Your task to perform on an android device: View the shopping cart on ebay. Image 0: 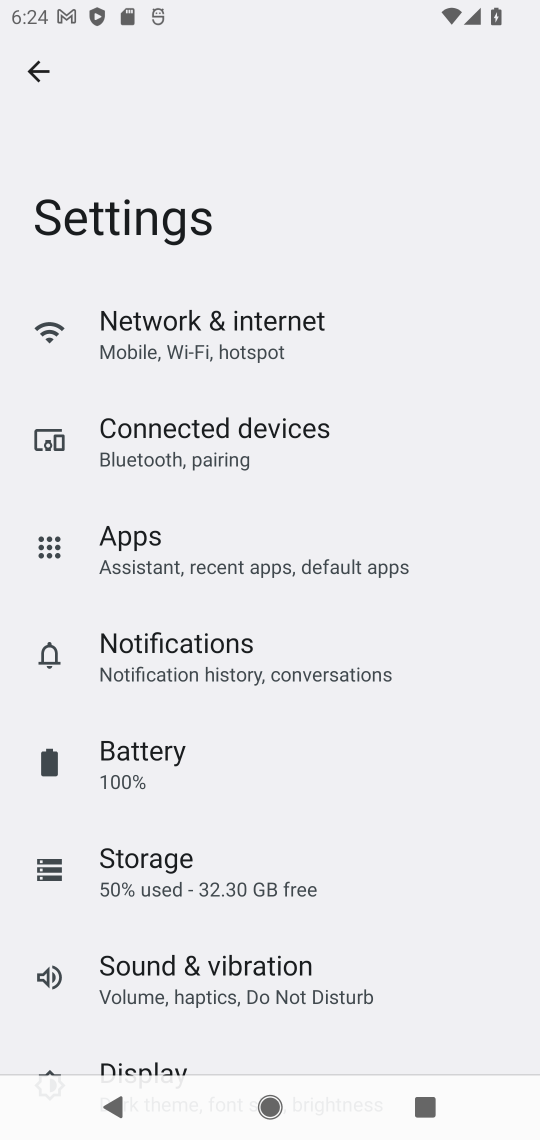
Step 0: press home button
Your task to perform on an android device: View the shopping cart on ebay. Image 1: 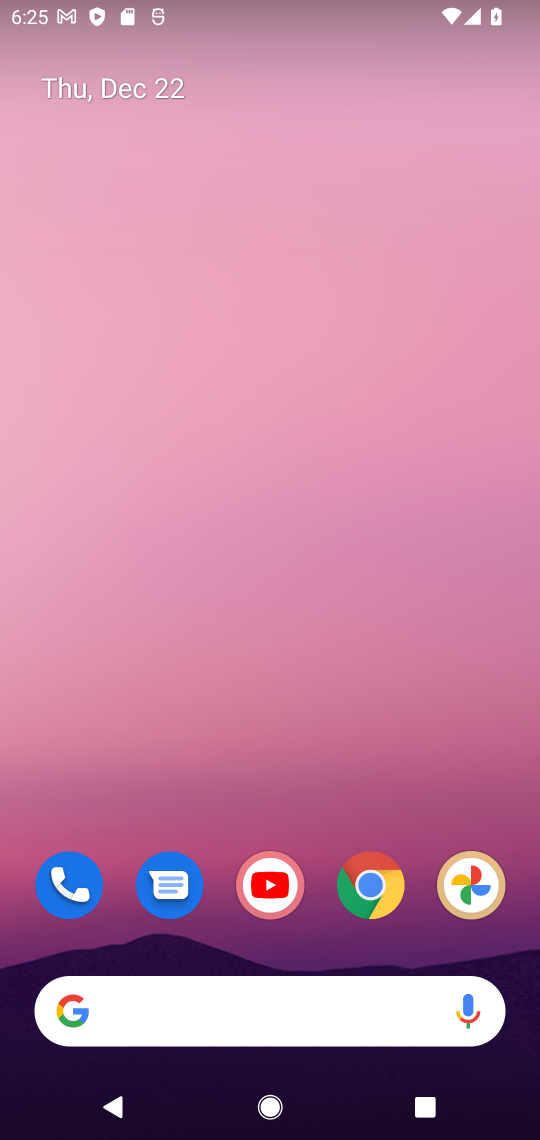
Step 1: click (369, 895)
Your task to perform on an android device: View the shopping cart on ebay. Image 2: 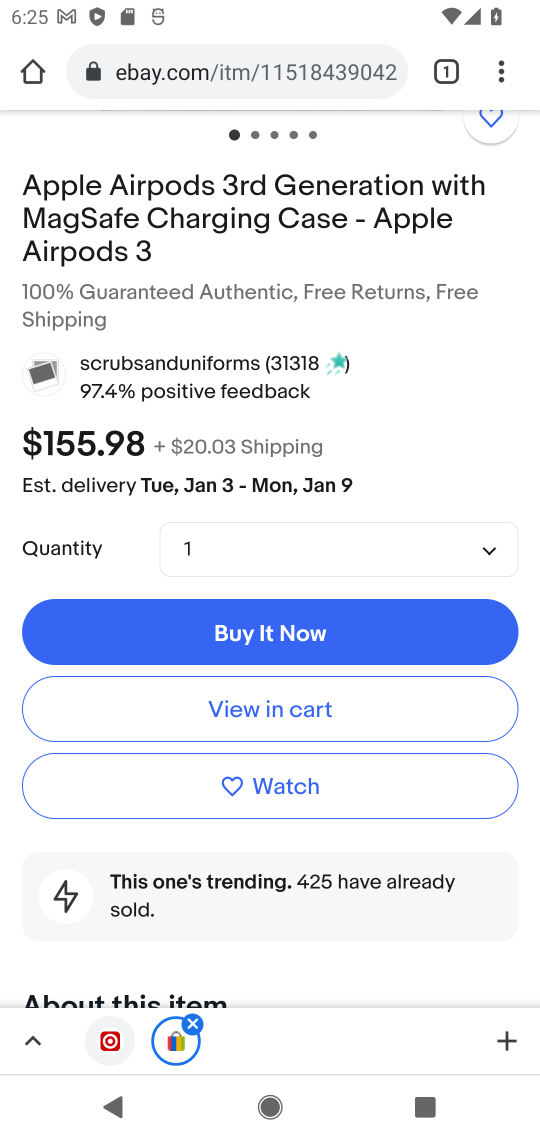
Step 2: drag from (375, 432) to (393, 1039)
Your task to perform on an android device: View the shopping cart on ebay. Image 3: 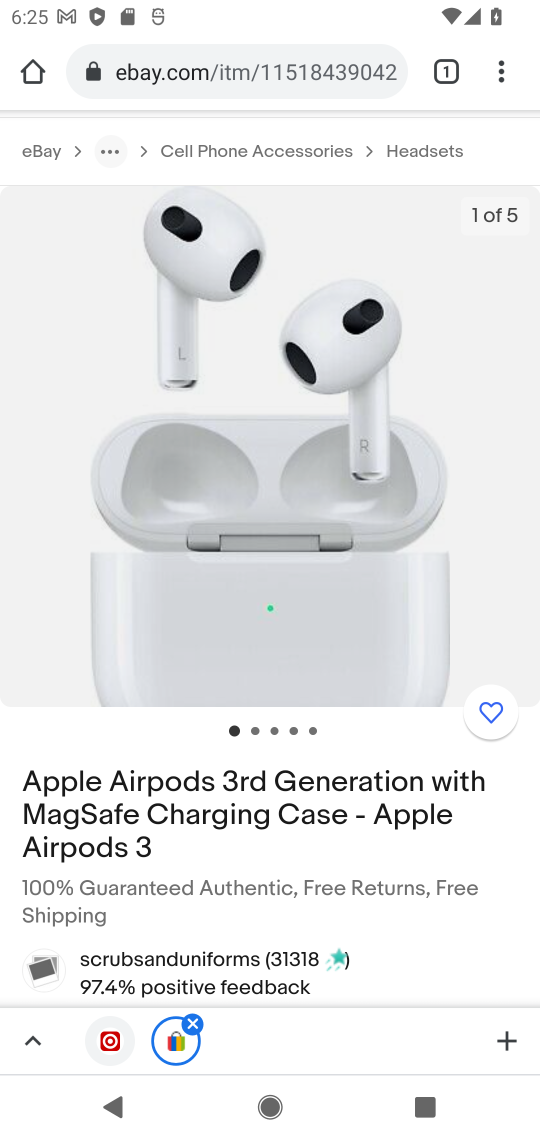
Step 3: drag from (435, 457) to (442, 908)
Your task to perform on an android device: View the shopping cart on ebay. Image 4: 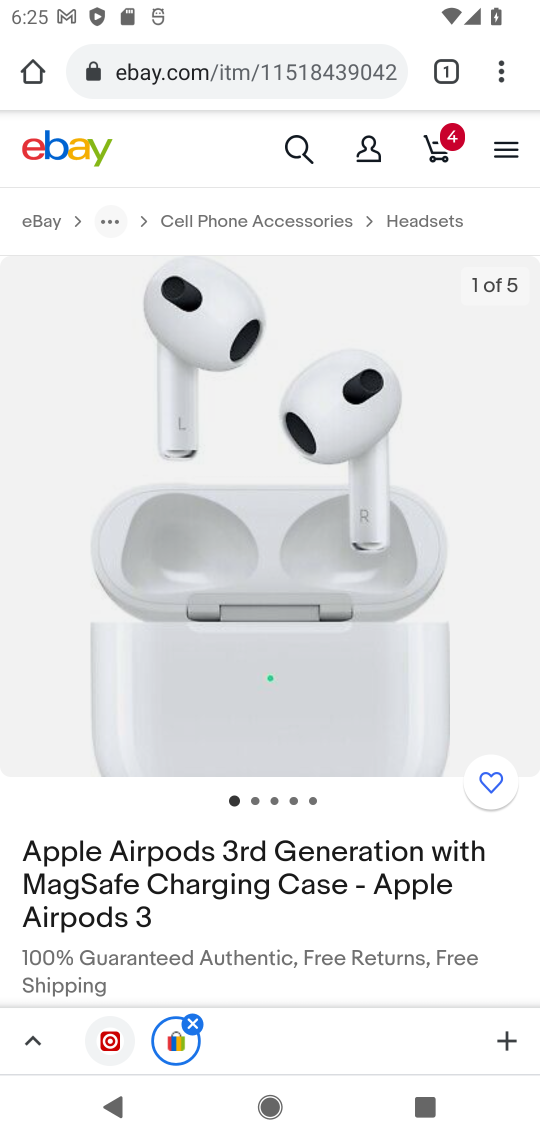
Step 4: click (445, 146)
Your task to perform on an android device: View the shopping cart on ebay. Image 5: 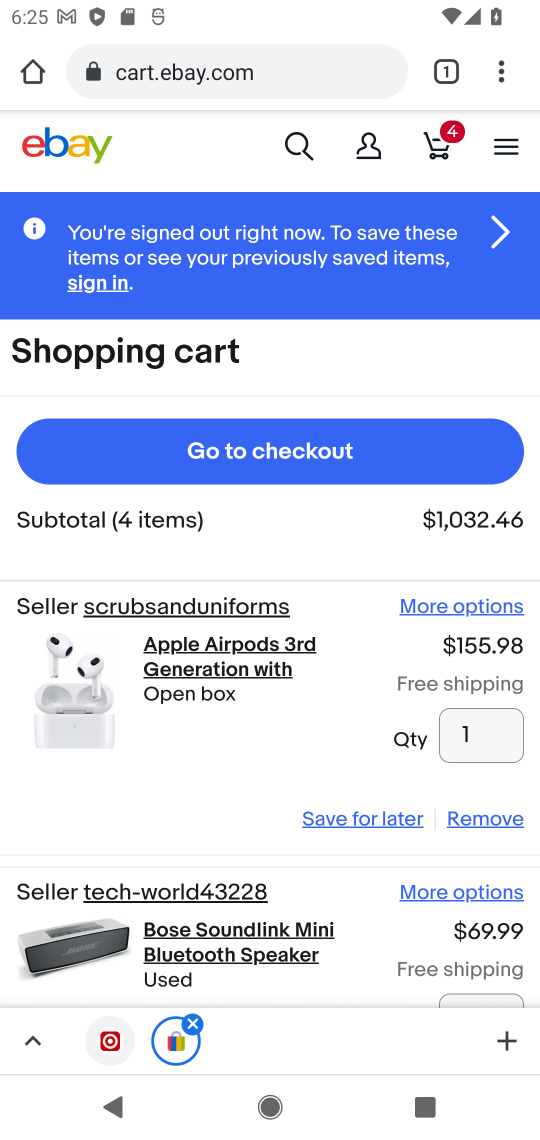
Step 5: task complete